Your task to perform on an android device: What is the news today? Image 0: 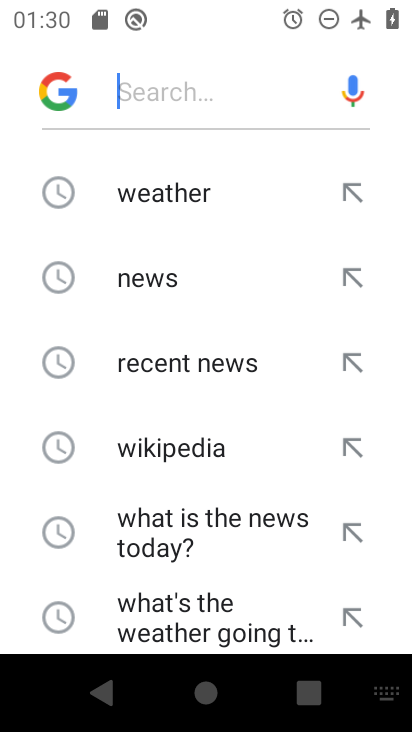
Step 0: press home button
Your task to perform on an android device: What is the news today? Image 1: 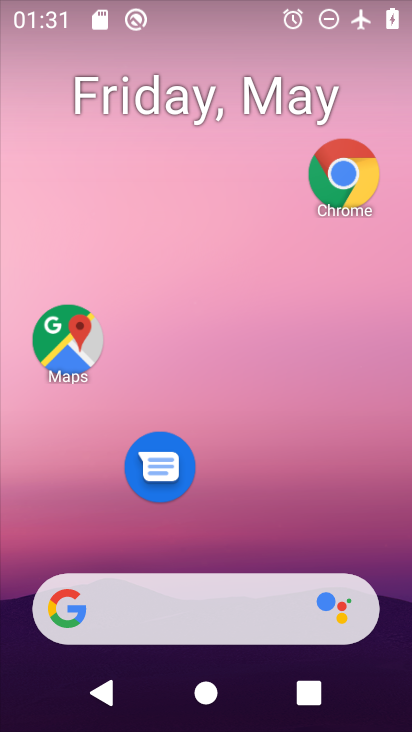
Step 1: drag from (258, 537) to (269, 163)
Your task to perform on an android device: What is the news today? Image 2: 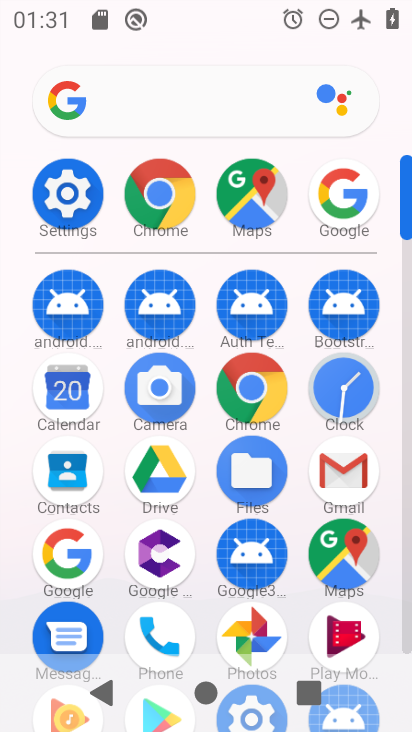
Step 2: click (156, 189)
Your task to perform on an android device: What is the news today? Image 3: 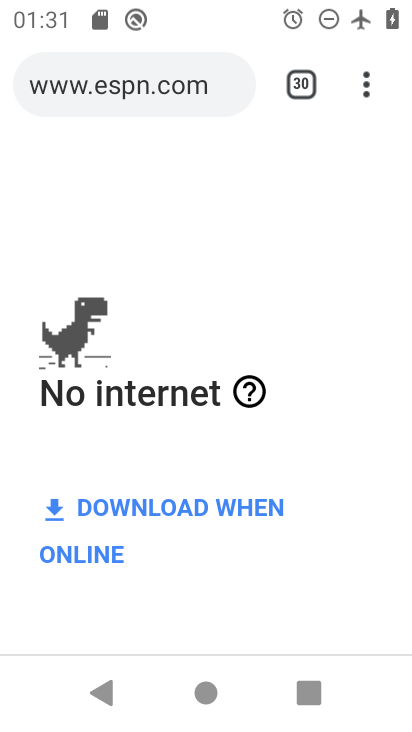
Step 3: click (356, 89)
Your task to perform on an android device: What is the news today? Image 4: 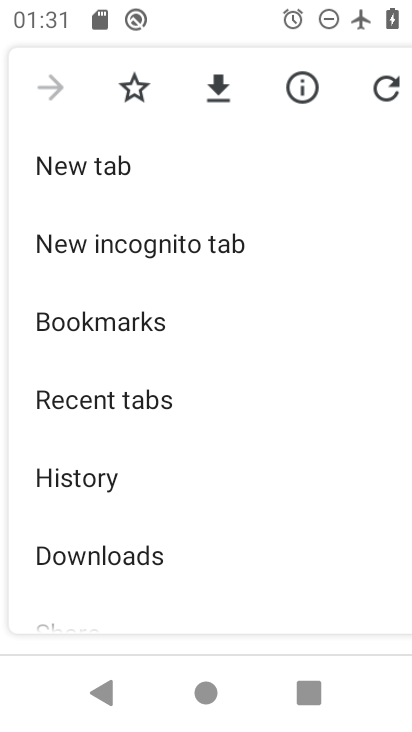
Step 4: click (145, 160)
Your task to perform on an android device: What is the news today? Image 5: 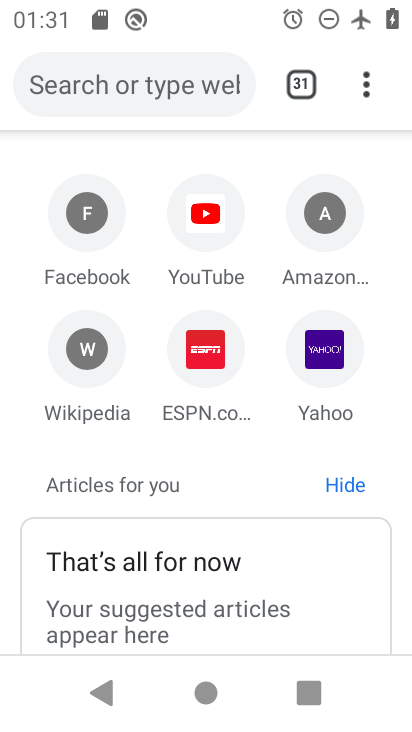
Step 5: click (123, 72)
Your task to perform on an android device: What is the news today? Image 6: 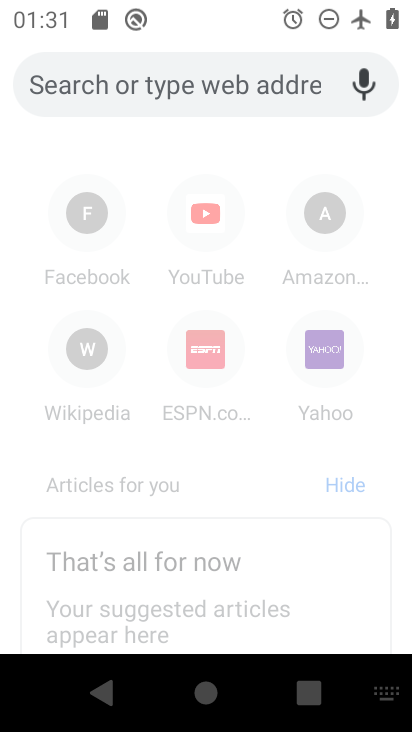
Step 6: type "Show me recent news"
Your task to perform on an android device: What is the news today? Image 7: 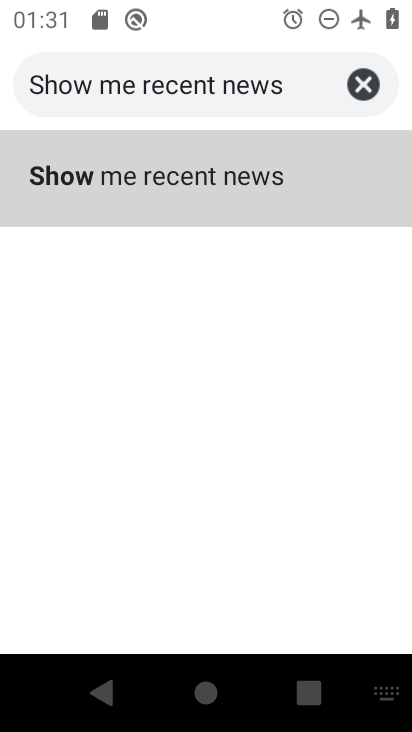
Step 7: click (109, 204)
Your task to perform on an android device: What is the news today? Image 8: 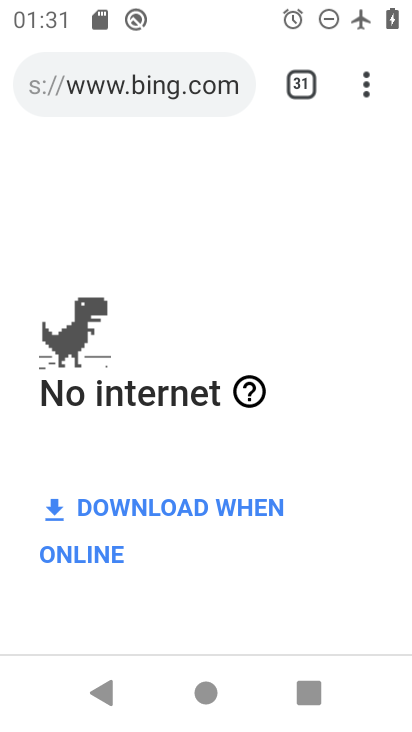
Step 8: task complete